Your task to perform on an android device: Is it going to rain tomorrow? Image 0: 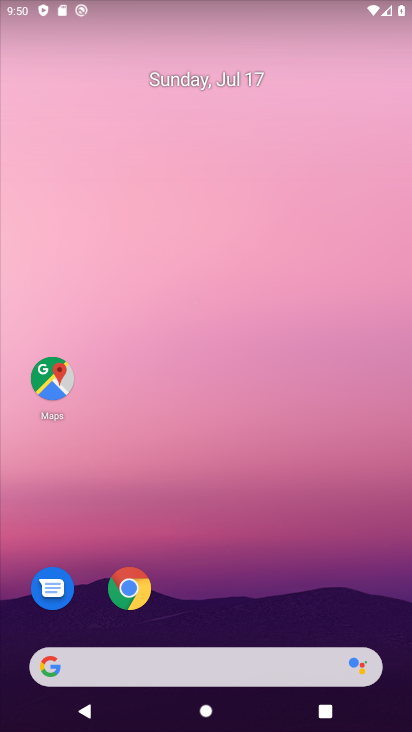
Step 0: click (137, 590)
Your task to perform on an android device: Is it going to rain tomorrow? Image 1: 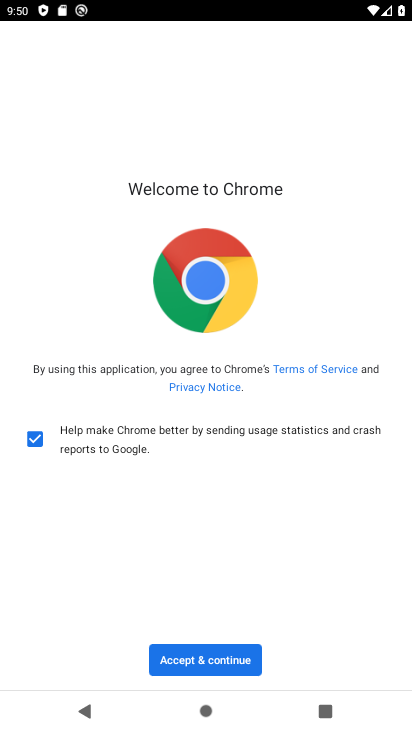
Step 1: click (242, 655)
Your task to perform on an android device: Is it going to rain tomorrow? Image 2: 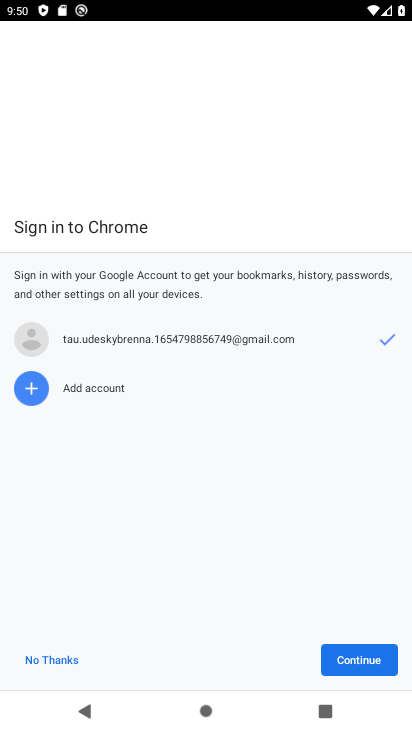
Step 2: click (370, 661)
Your task to perform on an android device: Is it going to rain tomorrow? Image 3: 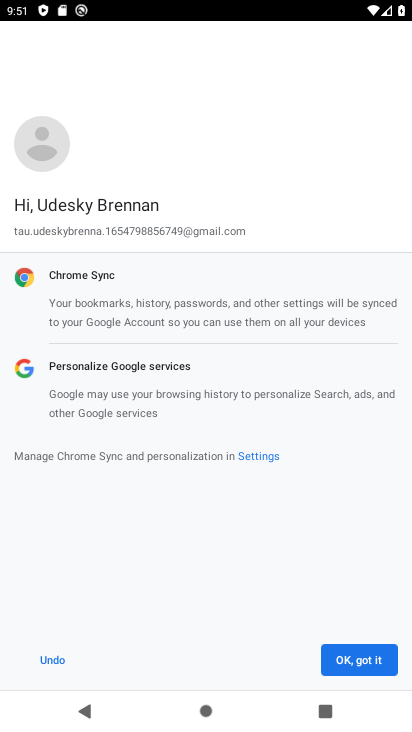
Step 3: click (370, 661)
Your task to perform on an android device: Is it going to rain tomorrow? Image 4: 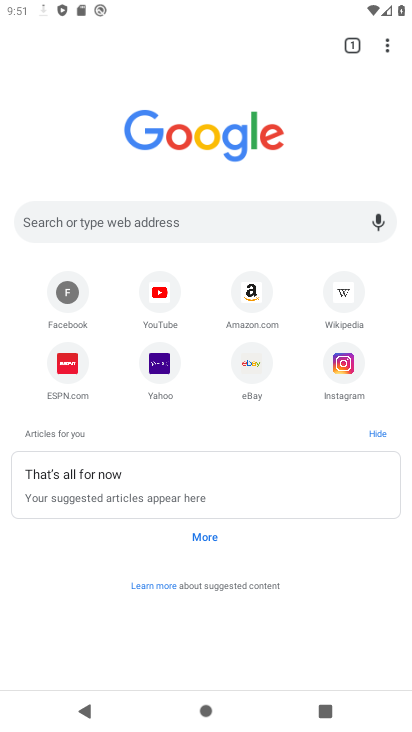
Step 4: click (250, 213)
Your task to perform on an android device: Is it going to rain tomorrow? Image 5: 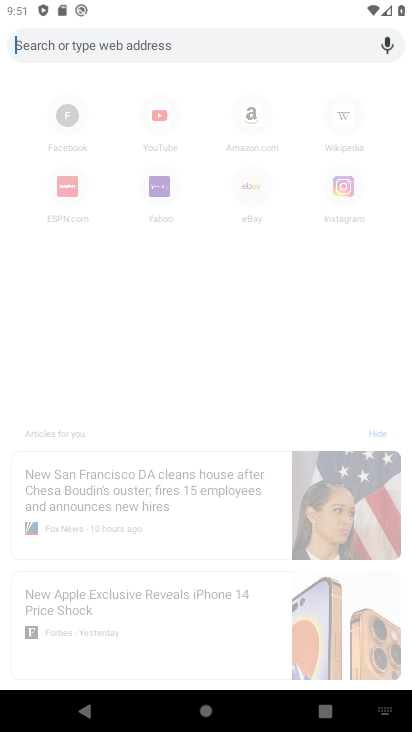
Step 5: type "Is it going to rain tomorrow?"
Your task to perform on an android device: Is it going to rain tomorrow? Image 6: 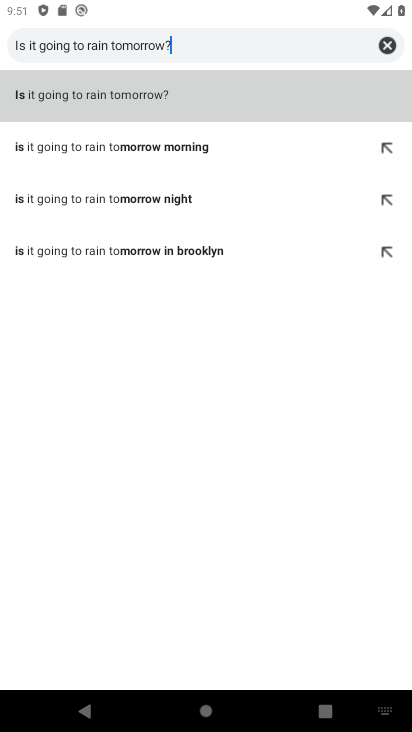
Step 6: click (144, 96)
Your task to perform on an android device: Is it going to rain tomorrow? Image 7: 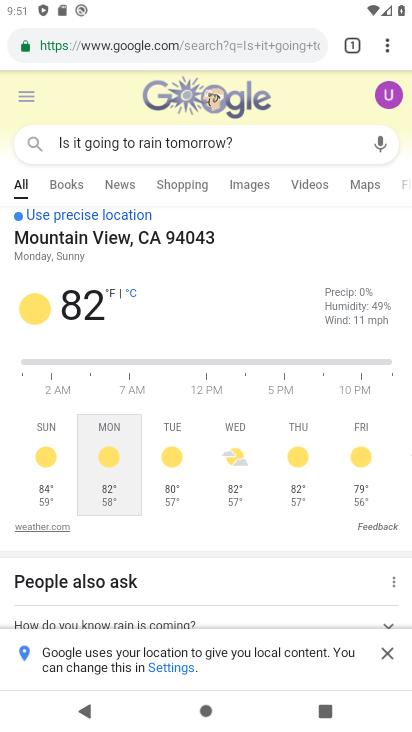
Step 7: task complete